Your task to perform on an android device: remove spam from my inbox in the gmail app Image 0: 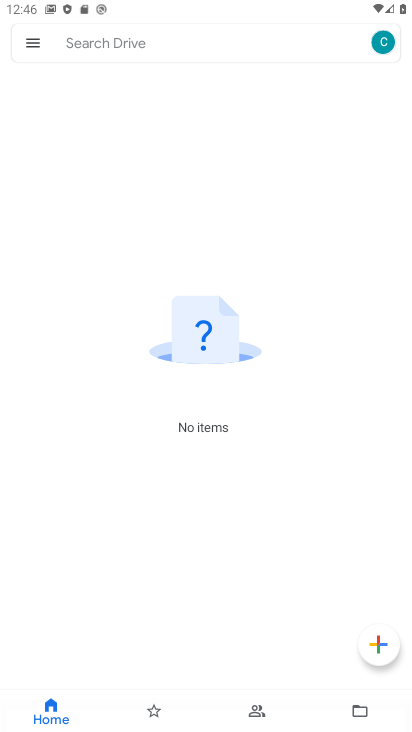
Step 0: press home button
Your task to perform on an android device: remove spam from my inbox in the gmail app Image 1: 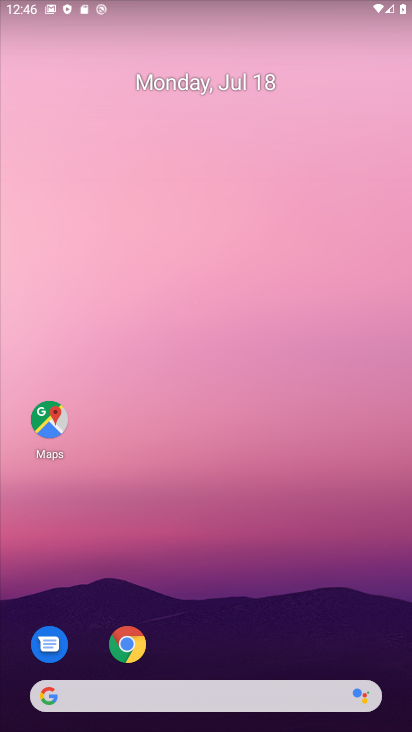
Step 1: drag from (293, 611) to (276, 86)
Your task to perform on an android device: remove spam from my inbox in the gmail app Image 2: 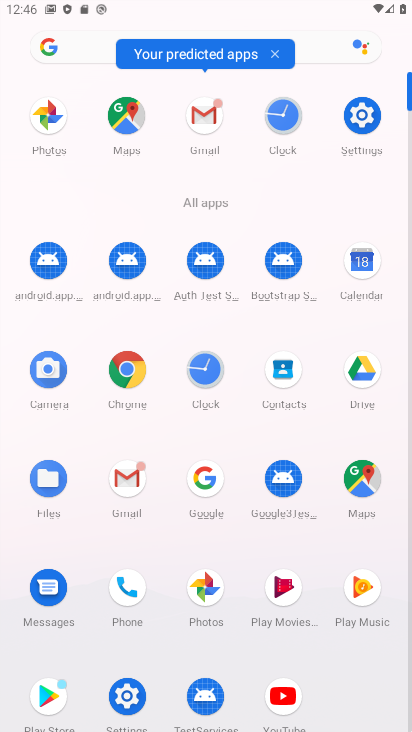
Step 2: click (206, 110)
Your task to perform on an android device: remove spam from my inbox in the gmail app Image 3: 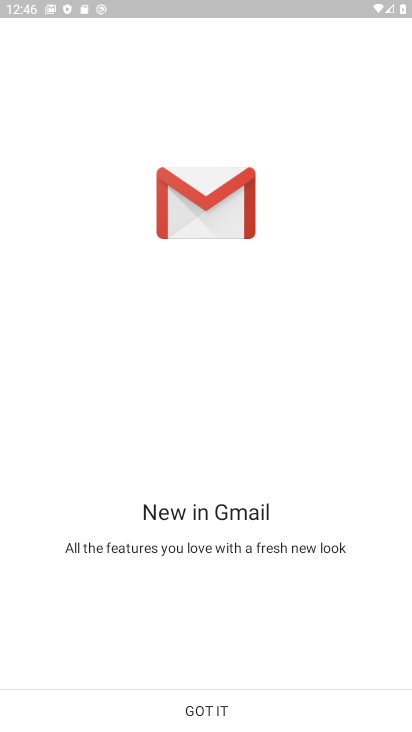
Step 3: click (193, 704)
Your task to perform on an android device: remove spam from my inbox in the gmail app Image 4: 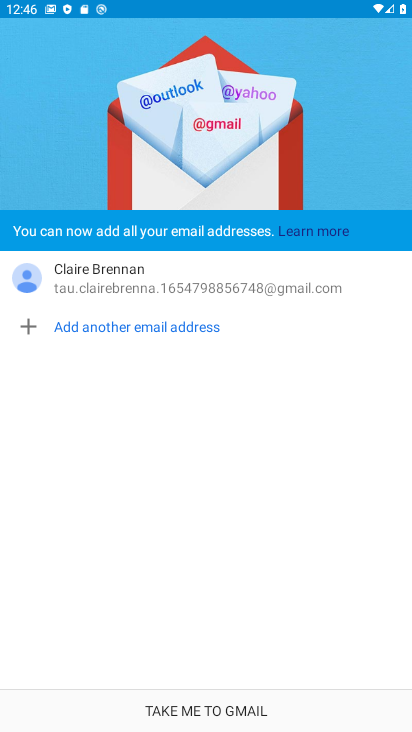
Step 4: click (193, 704)
Your task to perform on an android device: remove spam from my inbox in the gmail app Image 5: 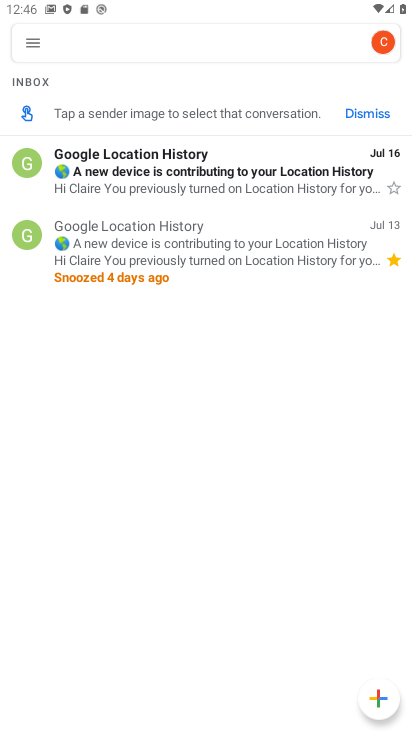
Step 5: click (31, 36)
Your task to perform on an android device: remove spam from my inbox in the gmail app Image 6: 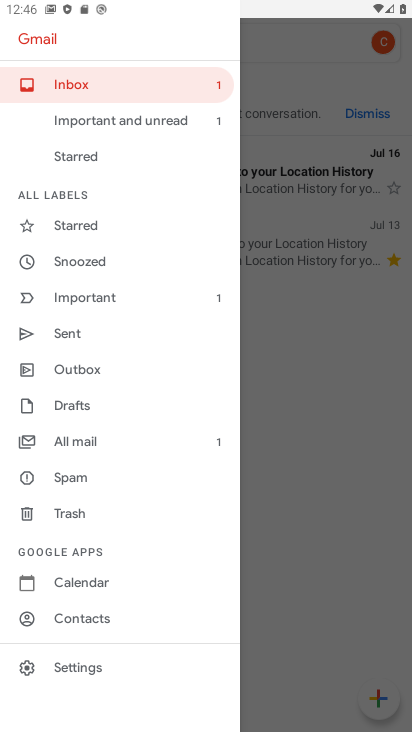
Step 6: click (90, 480)
Your task to perform on an android device: remove spam from my inbox in the gmail app Image 7: 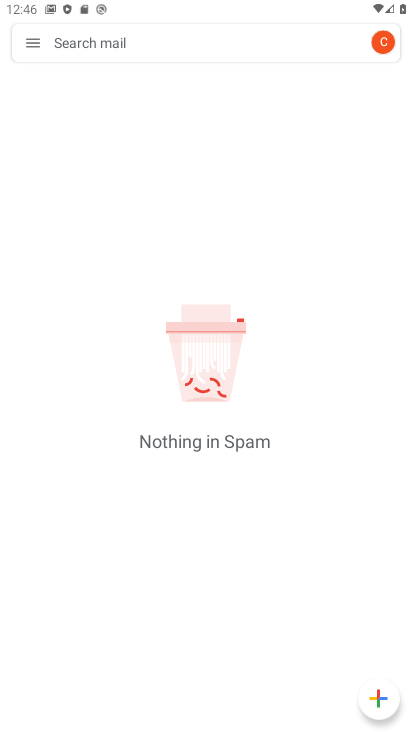
Step 7: task complete